Your task to perform on an android device: Set the phone to "Do not disturb". Image 0: 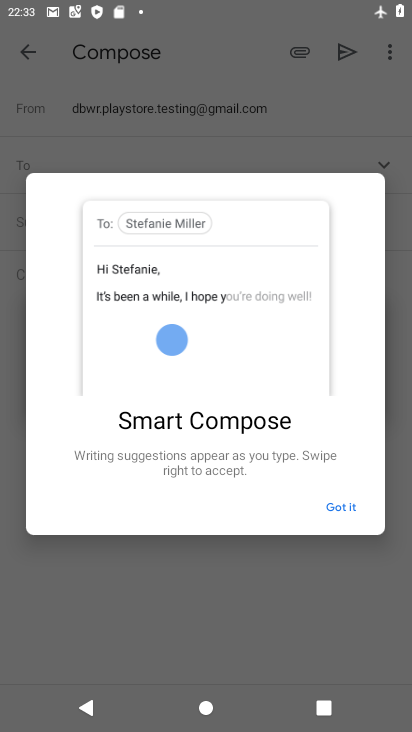
Step 0: drag from (222, 5) to (219, 542)
Your task to perform on an android device: Set the phone to "Do not disturb". Image 1: 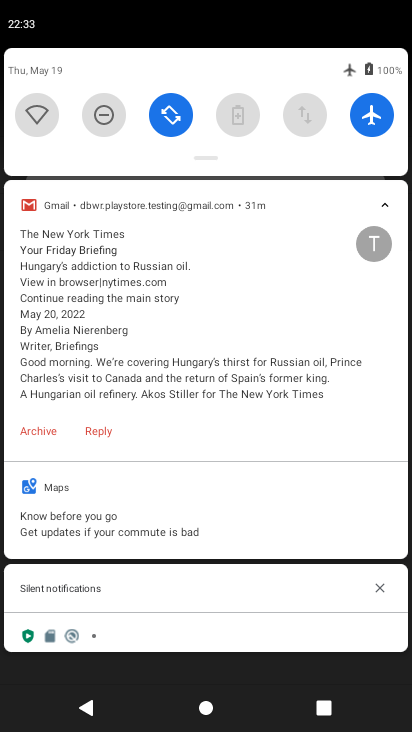
Step 1: click (108, 114)
Your task to perform on an android device: Set the phone to "Do not disturb". Image 2: 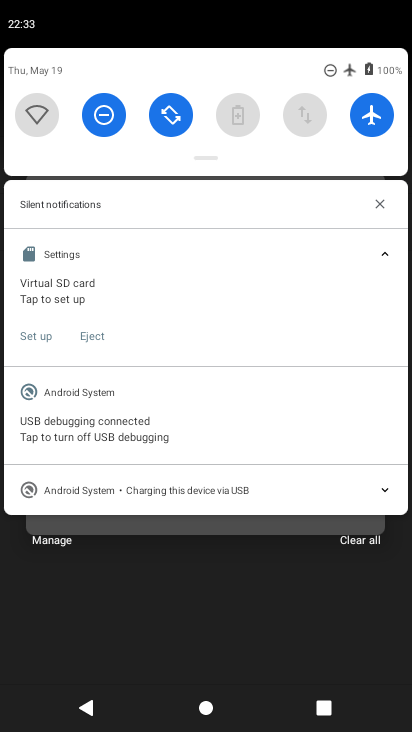
Step 2: task complete